Your task to perform on an android device: open chrome and create a bookmark for the current page Image 0: 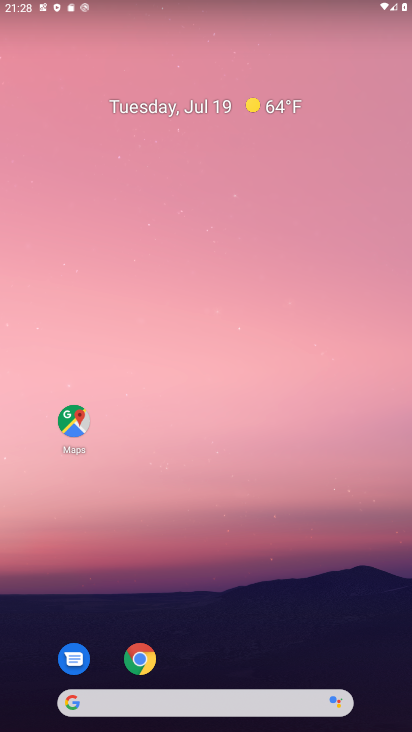
Step 0: click (141, 662)
Your task to perform on an android device: open chrome and create a bookmark for the current page Image 1: 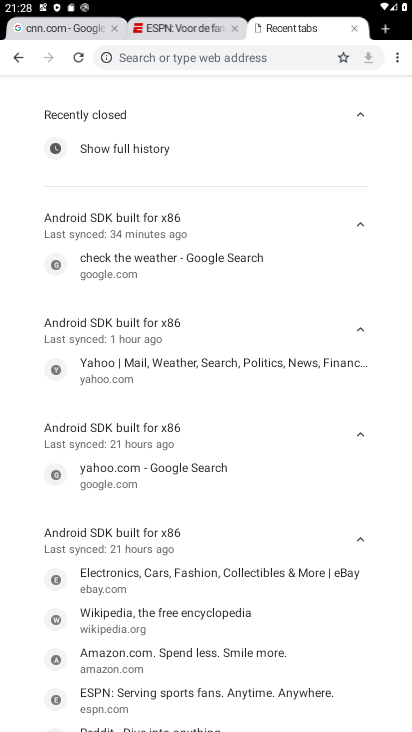
Step 1: click (345, 59)
Your task to perform on an android device: open chrome and create a bookmark for the current page Image 2: 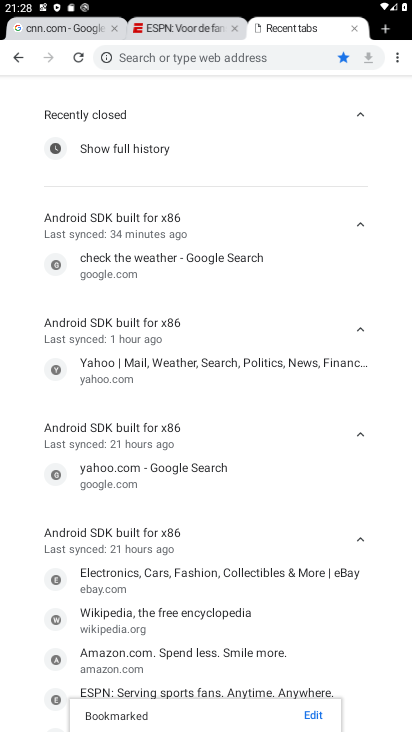
Step 2: task complete